Your task to perform on an android device: Clear the shopping cart on amazon. Add macbook pro to the cart on amazon, then select checkout. Image 0: 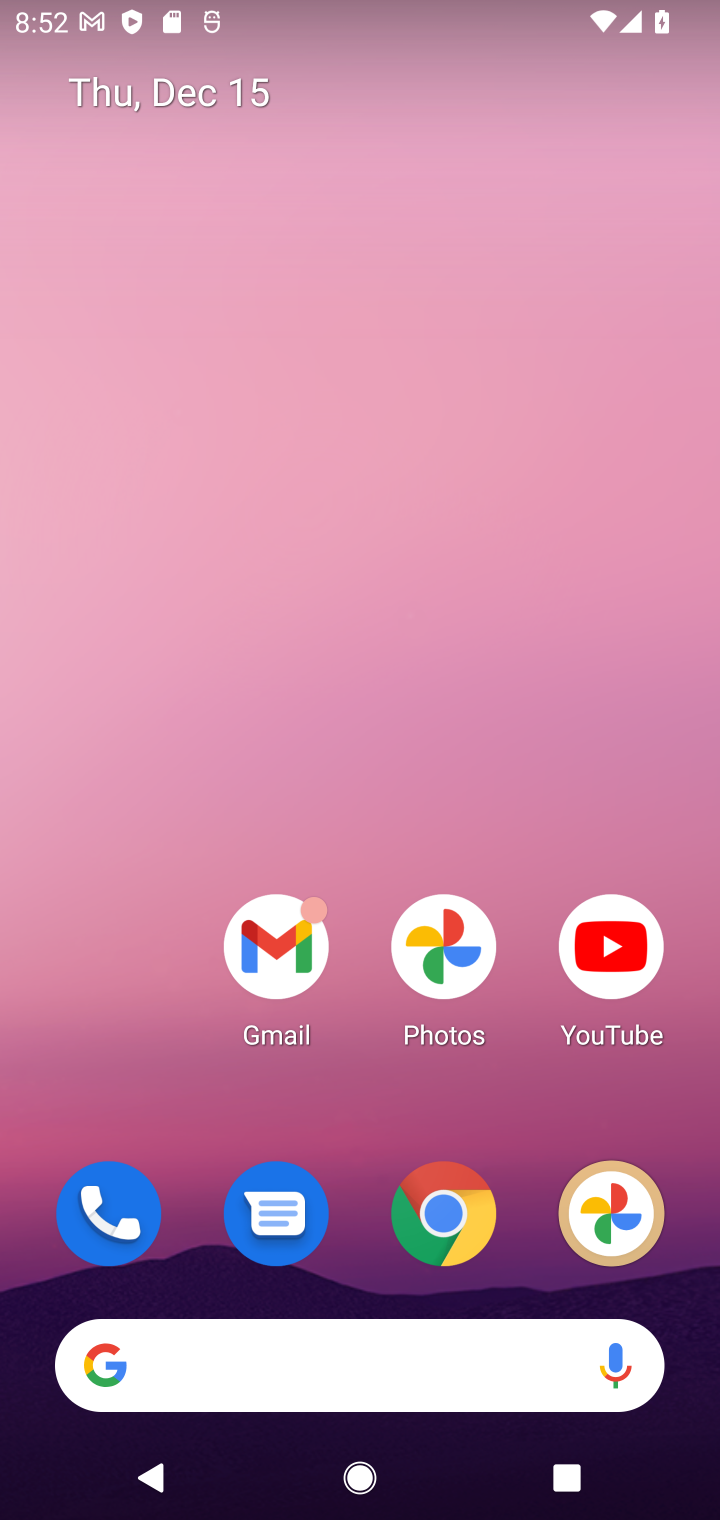
Step 0: drag from (349, 1087) to (349, 262)
Your task to perform on an android device: Clear the shopping cart on amazon. Add macbook pro to the cart on amazon, then select checkout. Image 1: 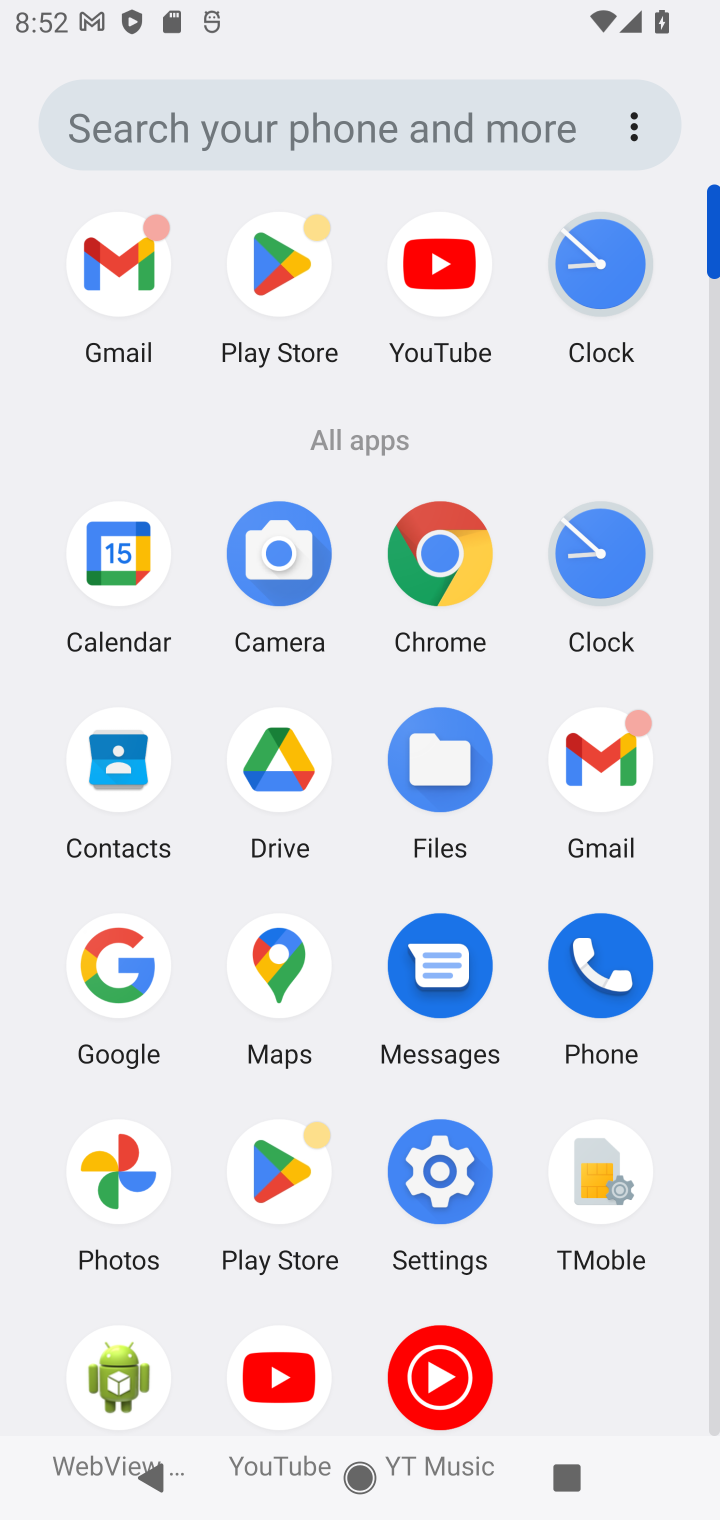
Step 1: click (119, 973)
Your task to perform on an android device: Clear the shopping cart on amazon. Add macbook pro to the cart on amazon, then select checkout. Image 2: 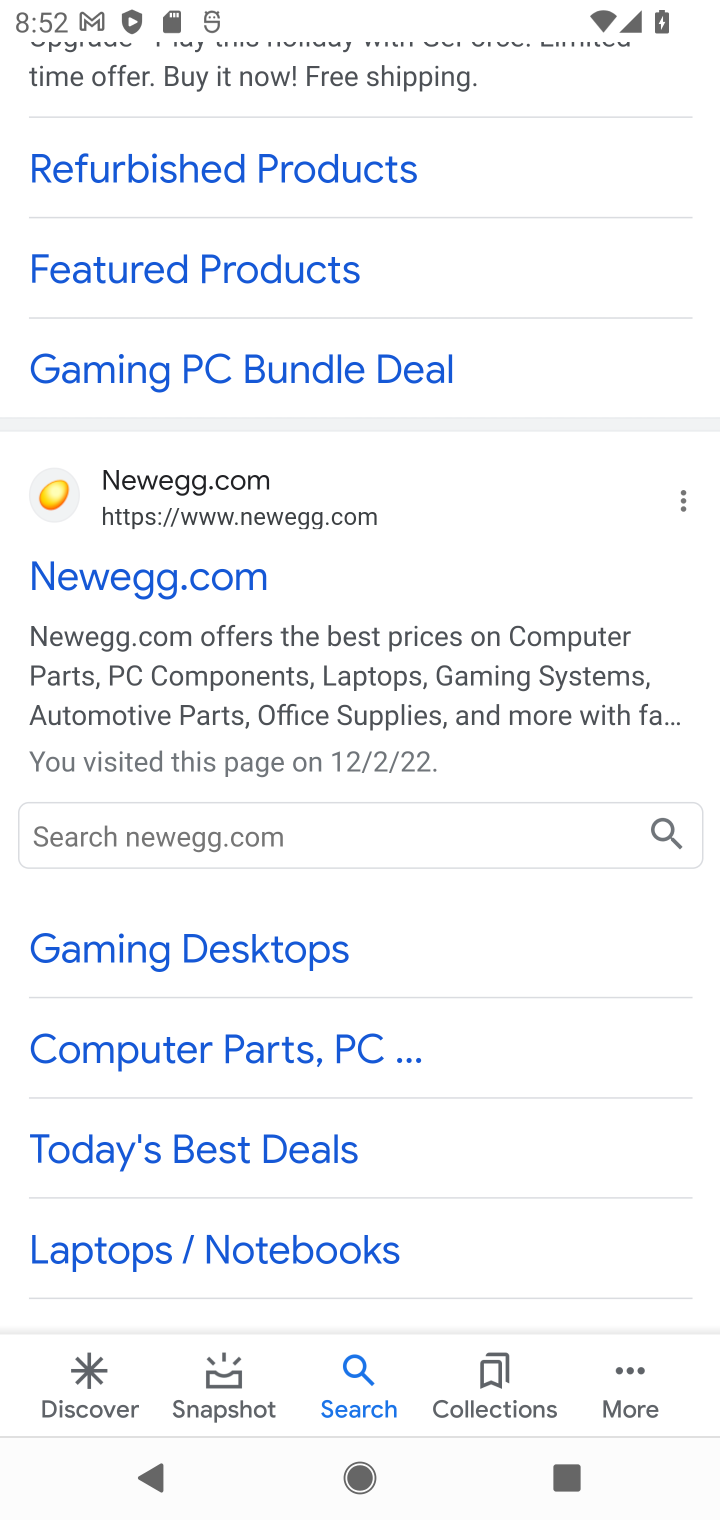
Step 2: drag from (423, 222) to (423, 1182)
Your task to perform on an android device: Clear the shopping cart on amazon. Add macbook pro to the cart on amazon, then select checkout. Image 3: 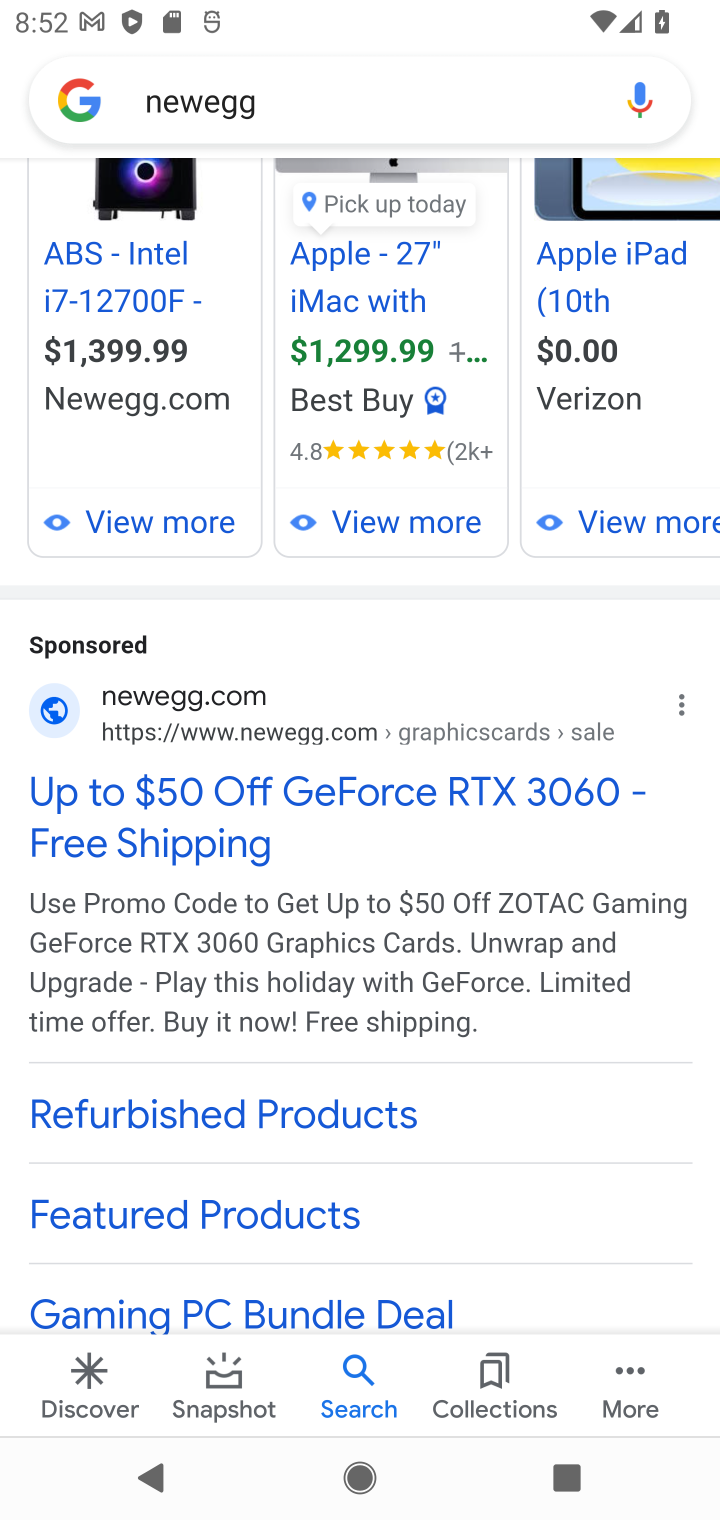
Step 3: drag from (241, 341) to (368, 1126)
Your task to perform on an android device: Clear the shopping cart on amazon. Add macbook pro to the cart on amazon, then select checkout. Image 4: 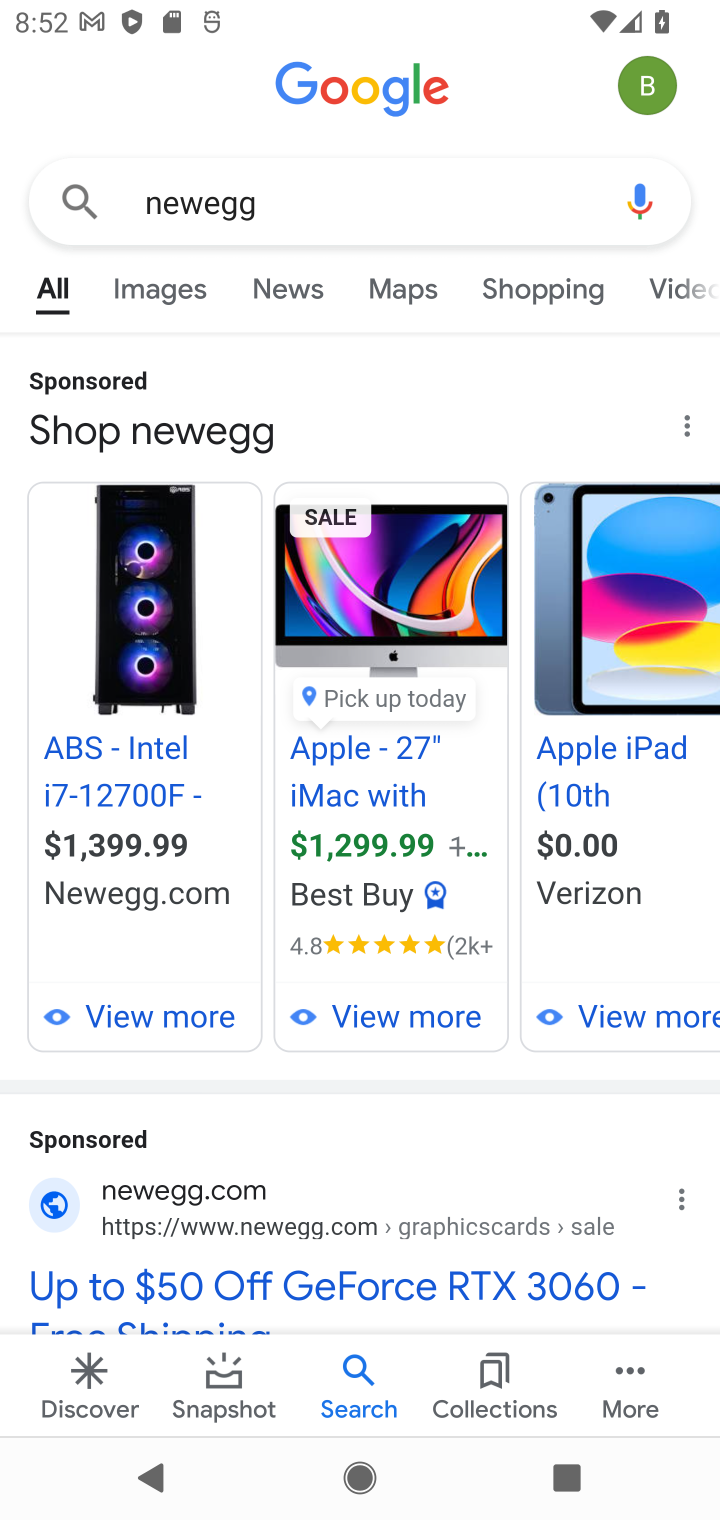
Step 4: click (209, 84)
Your task to perform on an android device: Clear the shopping cart on amazon. Add macbook pro to the cart on amazon, then select checkout. Image 5: 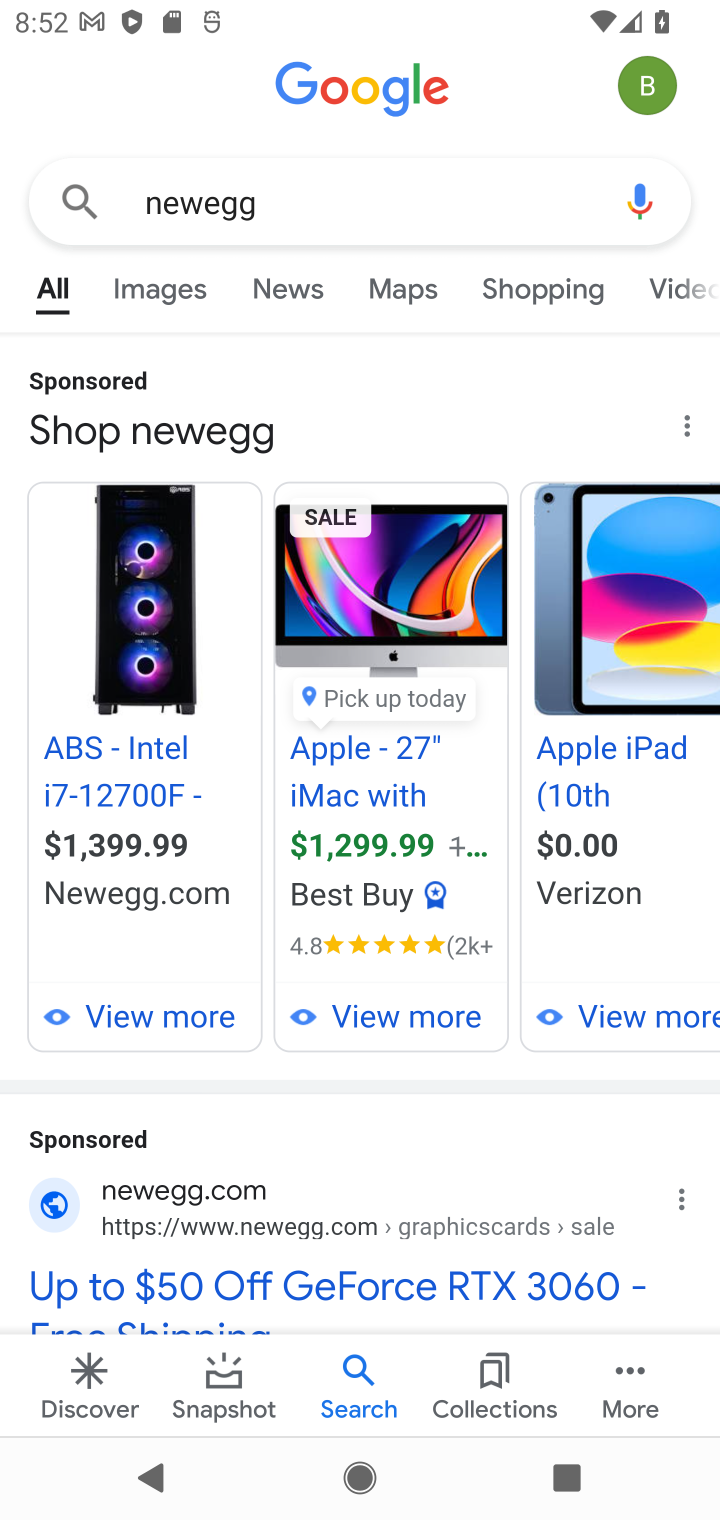
Step 5: click (226, 203)
Your task to perform on an android device: Clear the shopping cart on amazon. Add macbook pro to the cart on amazon, then select checkout. Image 6: 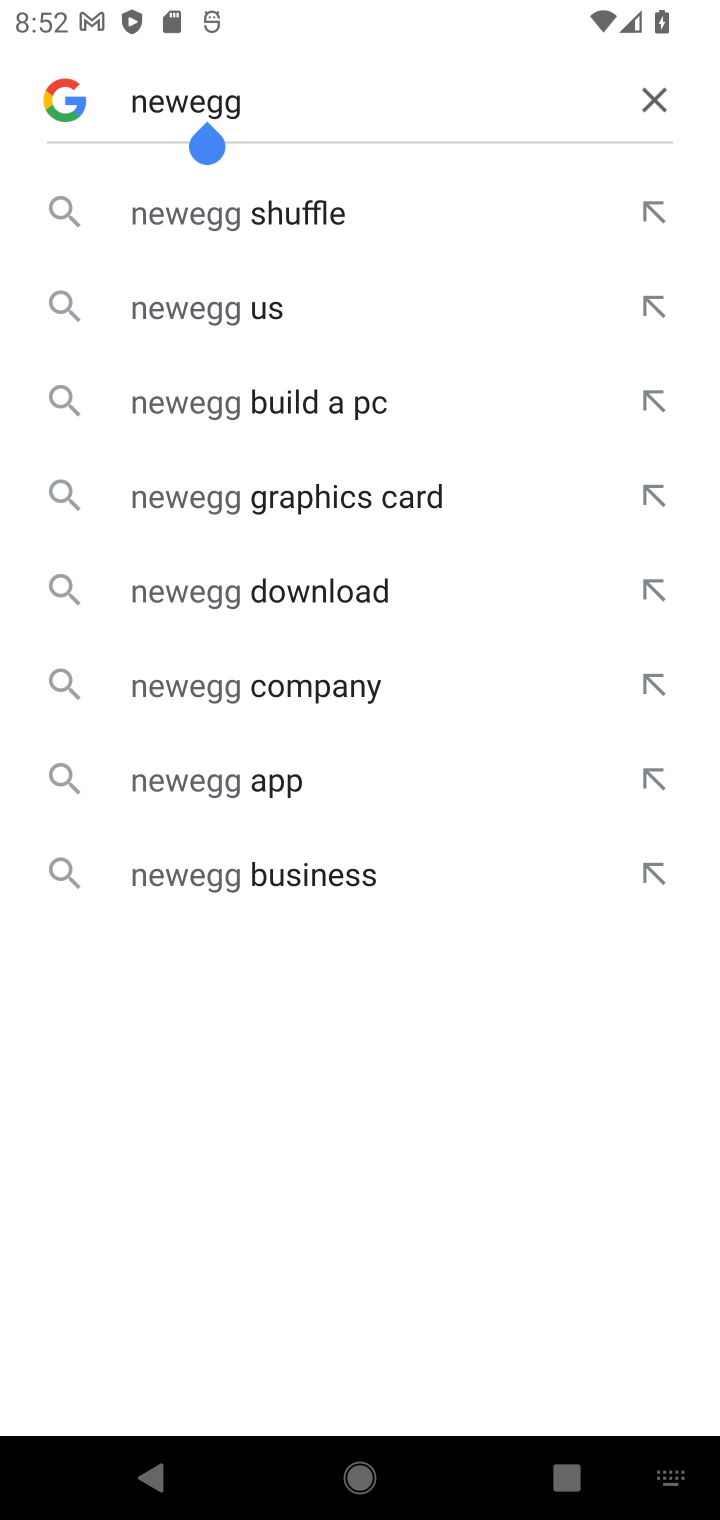
Step 6: click (657, 103)
Your task to perform on an android device: Clear the shopping cart on amazon. Add macbook pro to the cart on amazon, then select checkout. Image 7: 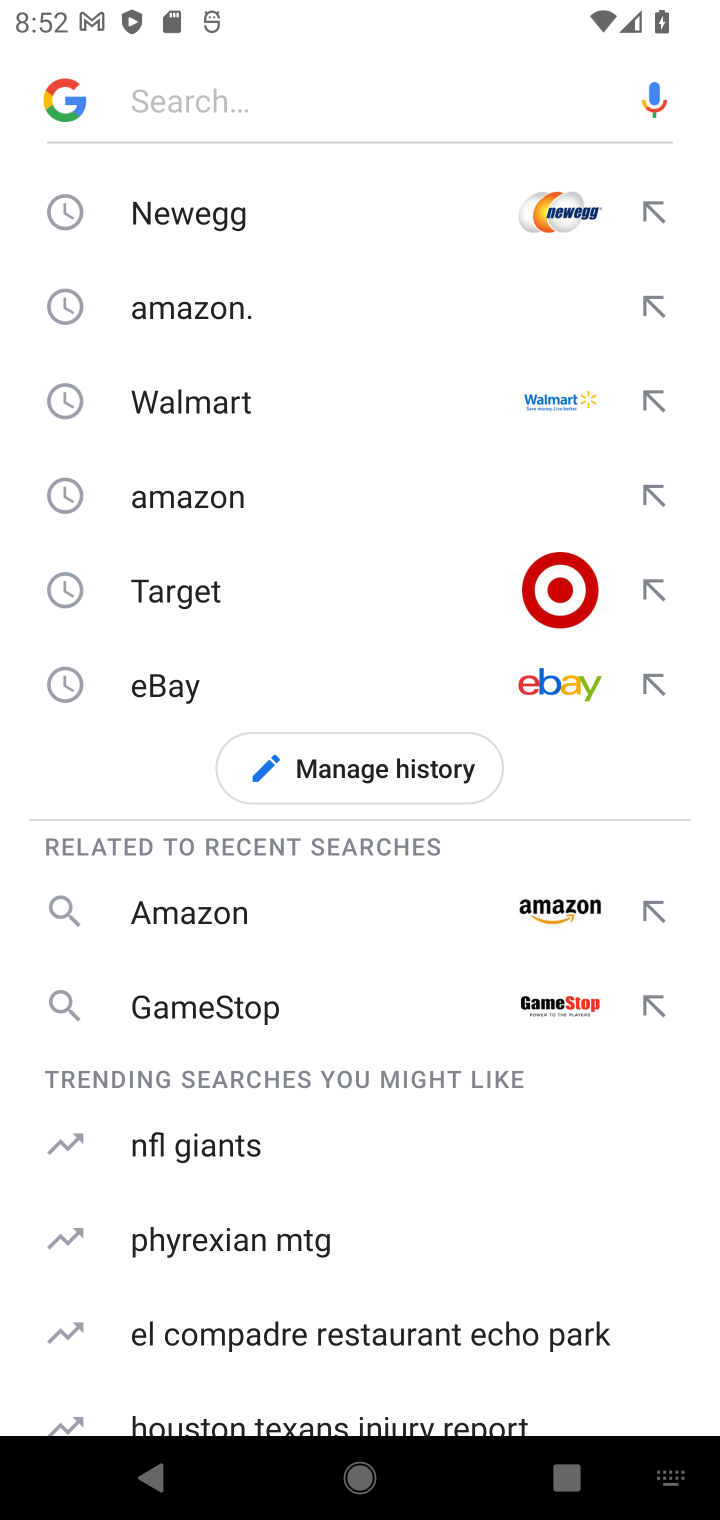
Step 7: click (179, 906)
Your task to perform on an android device: Clear the shopping cart on amazon. Add macbook pro to the cart on amazon, then select checkout. Image 8: 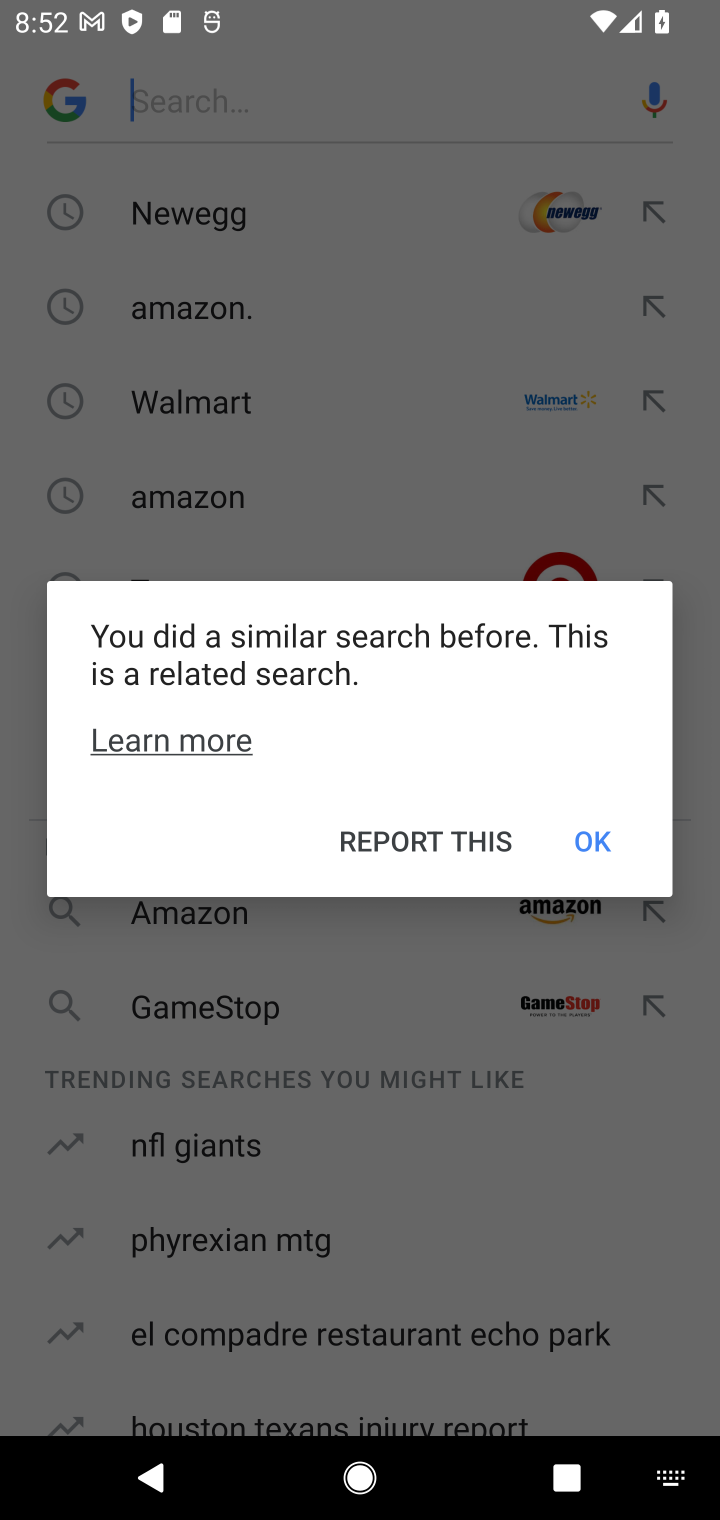
Step 8: click (608, 842)
Your task to perform on an android device: Clear the shopping cart on amazon. Add macbook pro to the cart on amazon, then select checkout. Image 9: 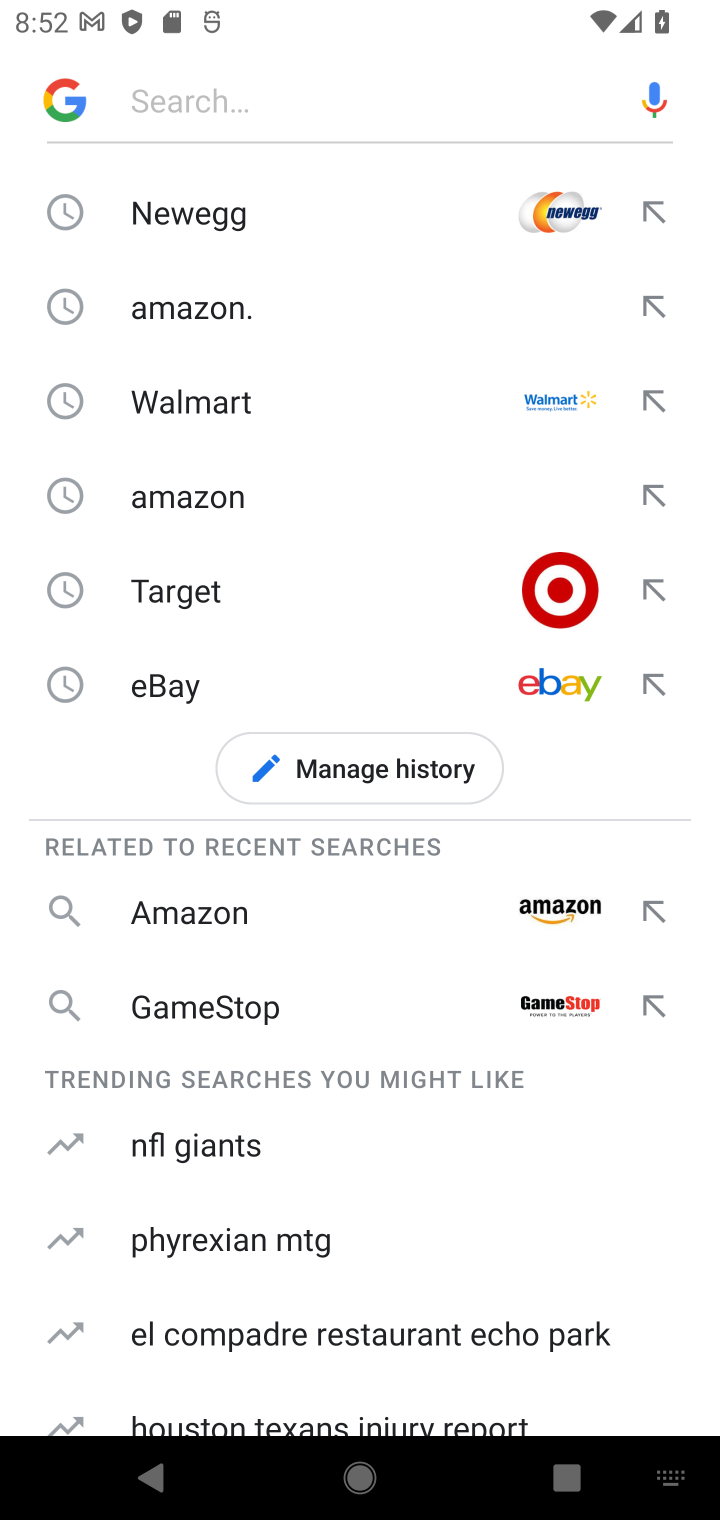
Step 9: click (543, 912)
Your task to perform on an android device: Clear the shopping cart on amazon. Add macbook pro to the cart on amazon, then select checkout. Image 10: 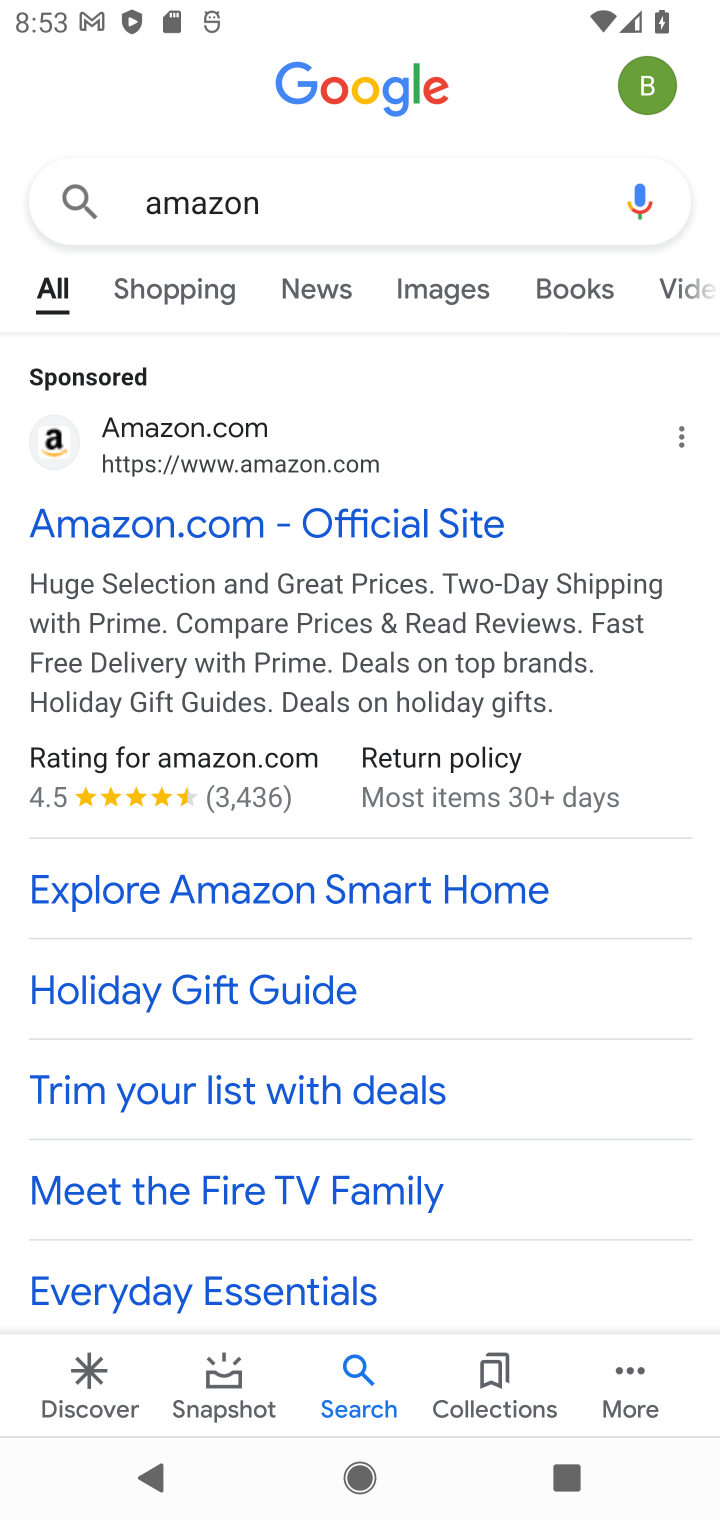
Step 10: click (174, 513)
Your task to perform on an android device: Clear the shopping cart on amazon. Add macbook pro to the cart on amazon, then select checkout. Image 11: 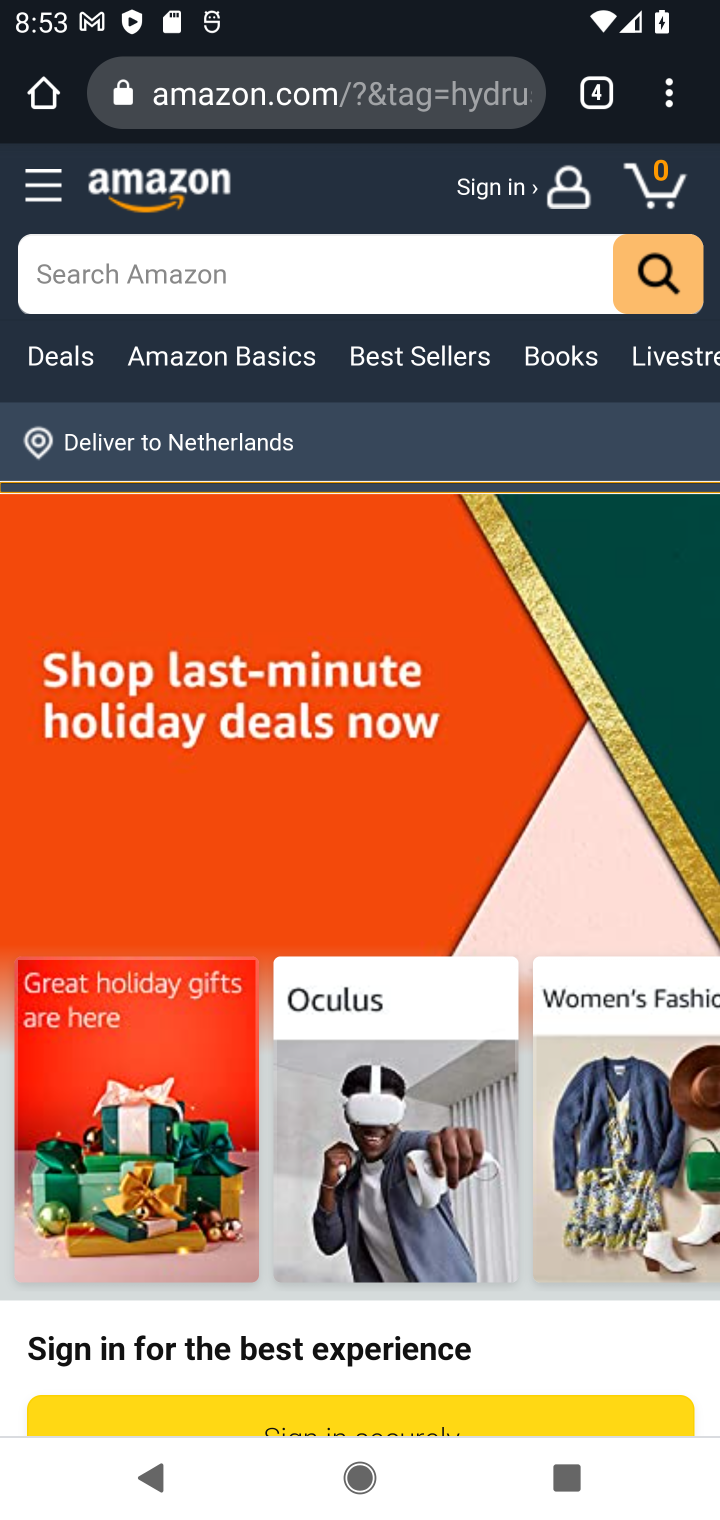
Step 11: click (227, 280)
Your task to perform on an android device: Clear the shopping cart on amazon. Add macbook pro to the cart on amazon, then select checkout. Image 12: 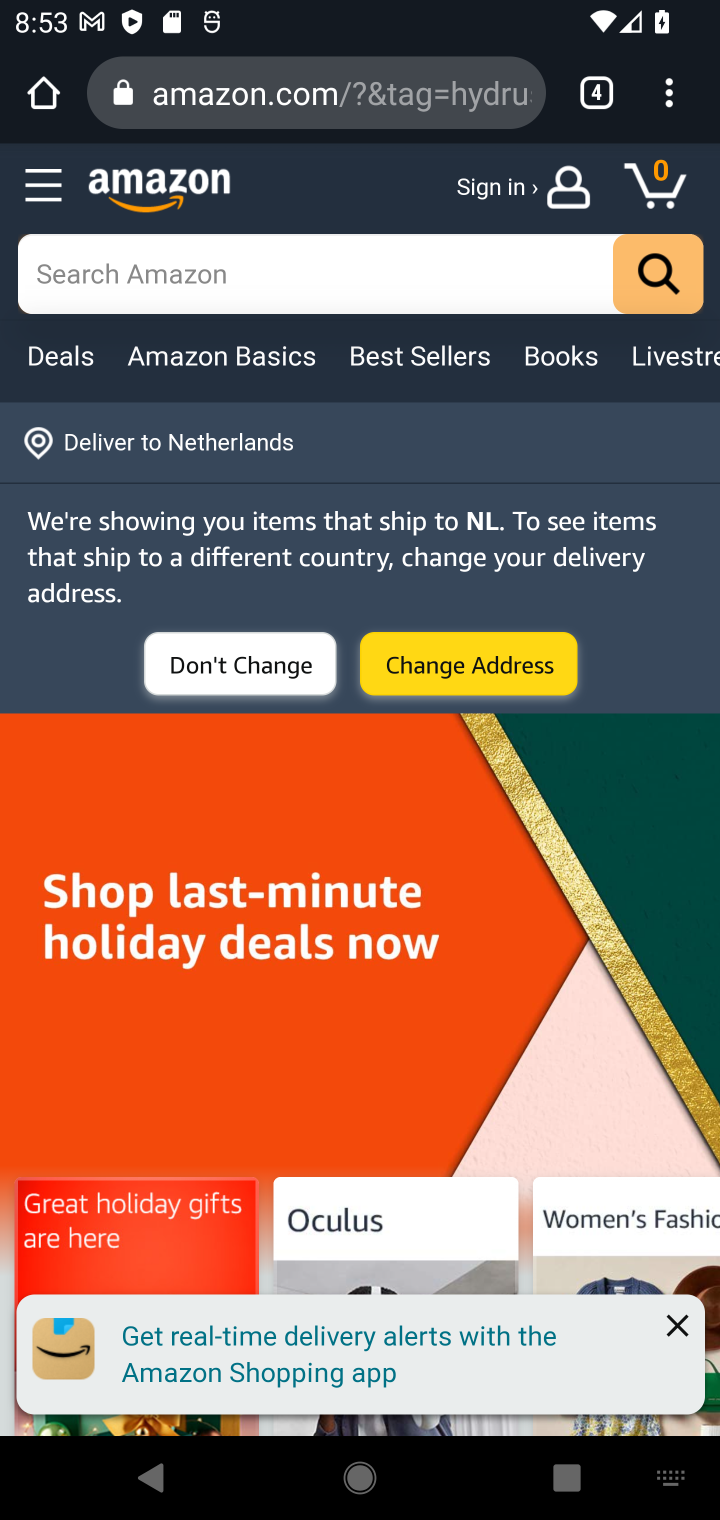
Step 12: type "macbook pro"
Your task to perform on an android device: Clear the shopping cart on amazon. Add macbook pro to the cart on amazon, then select checkout. Image 13: 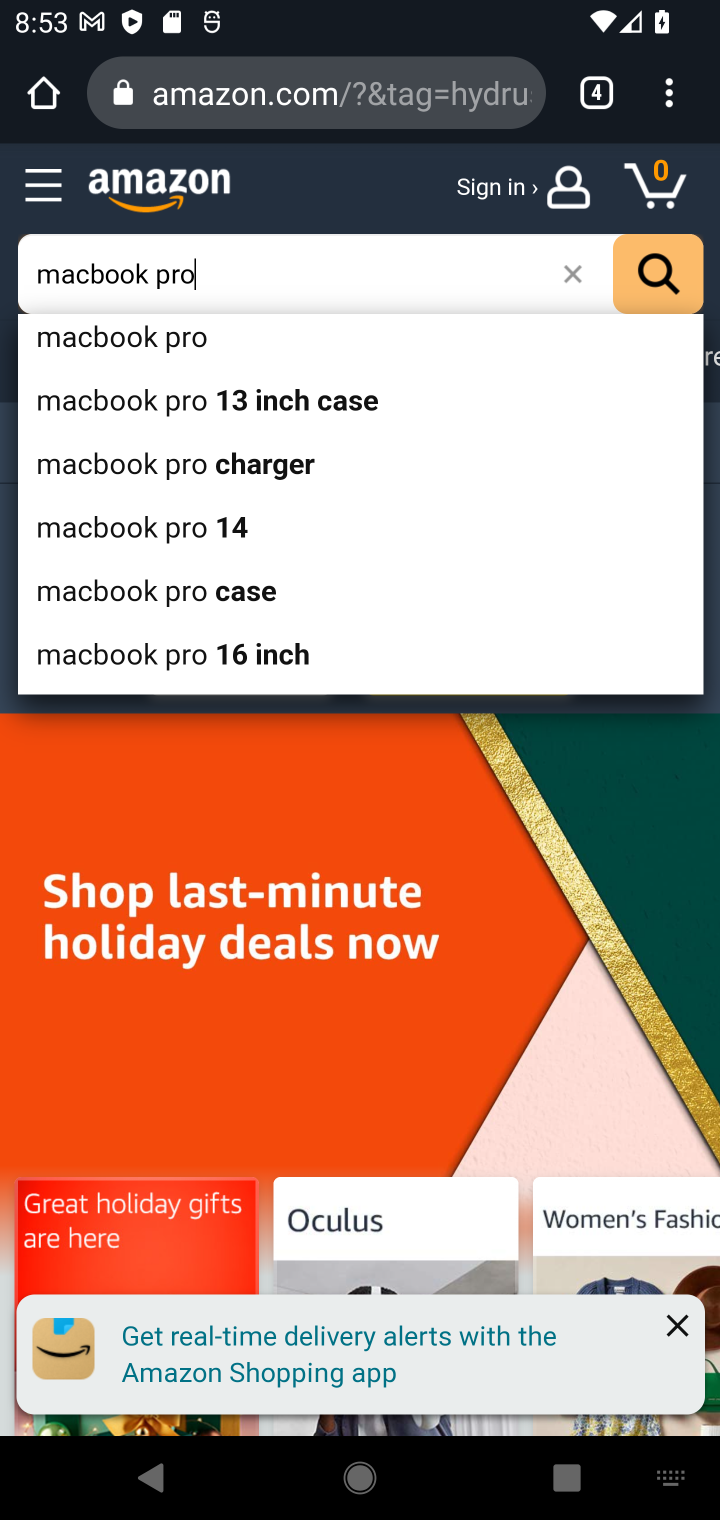
Step 13: click (94, 346)
Your task to perform on an android device: Clear the shopping cart on amazon. Add macbook pro to the cart on amazon, then select checkout. Image 14: 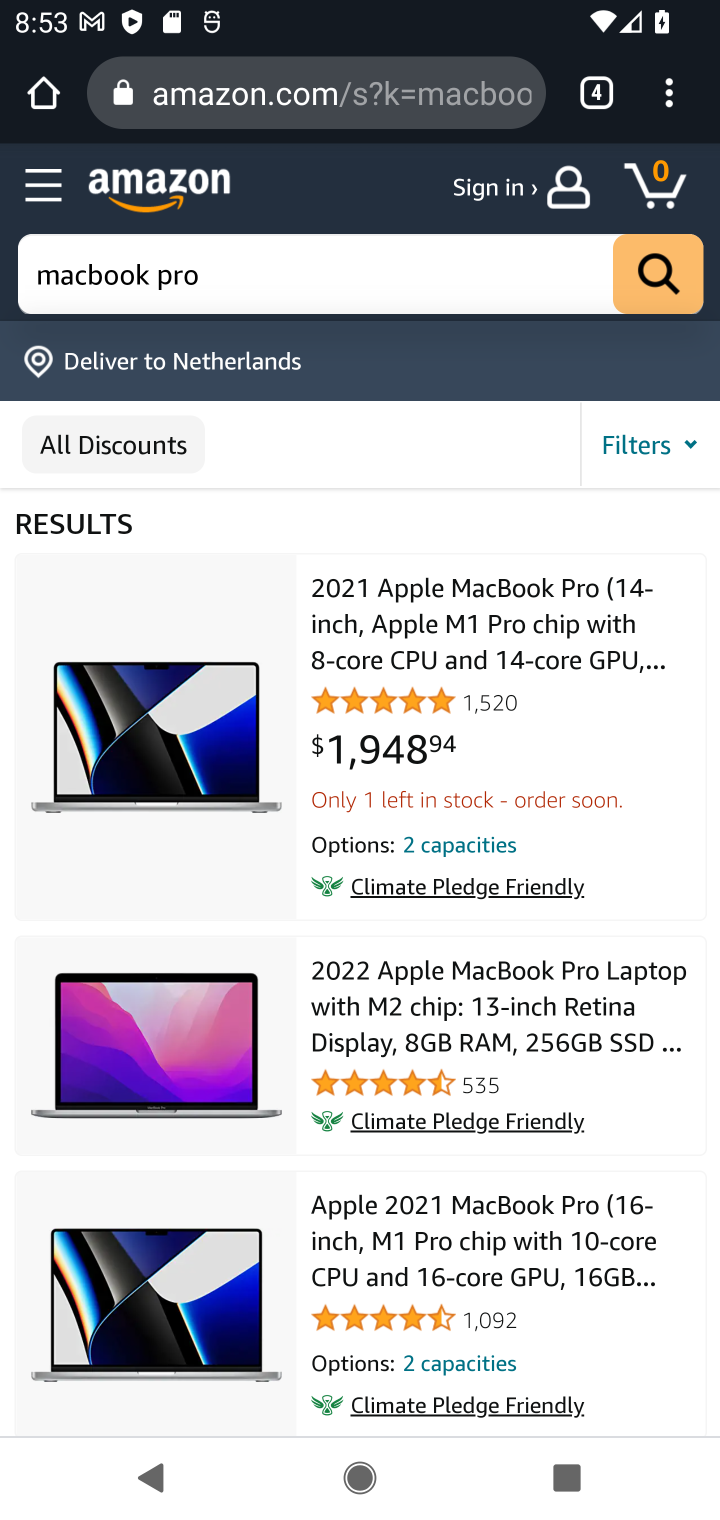
Step 14: click (225, 285)
Your task to perform on an android device: Clear the shopping cart on amazon. Add macbook pro to the cart on amazon, then select checkout. Image 15: 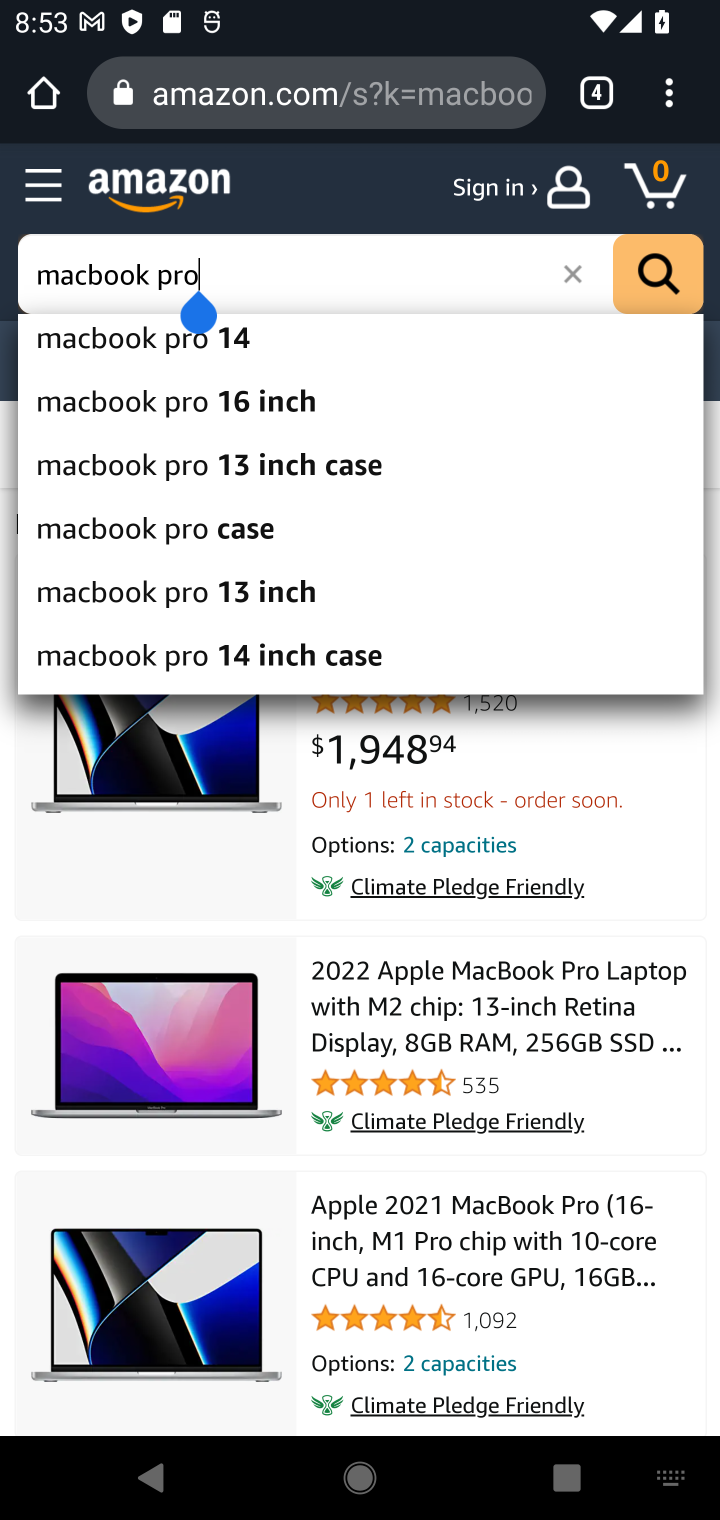
Step 15: click (717, 382)
Your task to perform on an android device: Clear the shopping cart on amazon. Add macbook pro to the cart on amazon, then select checkout. Image 16: 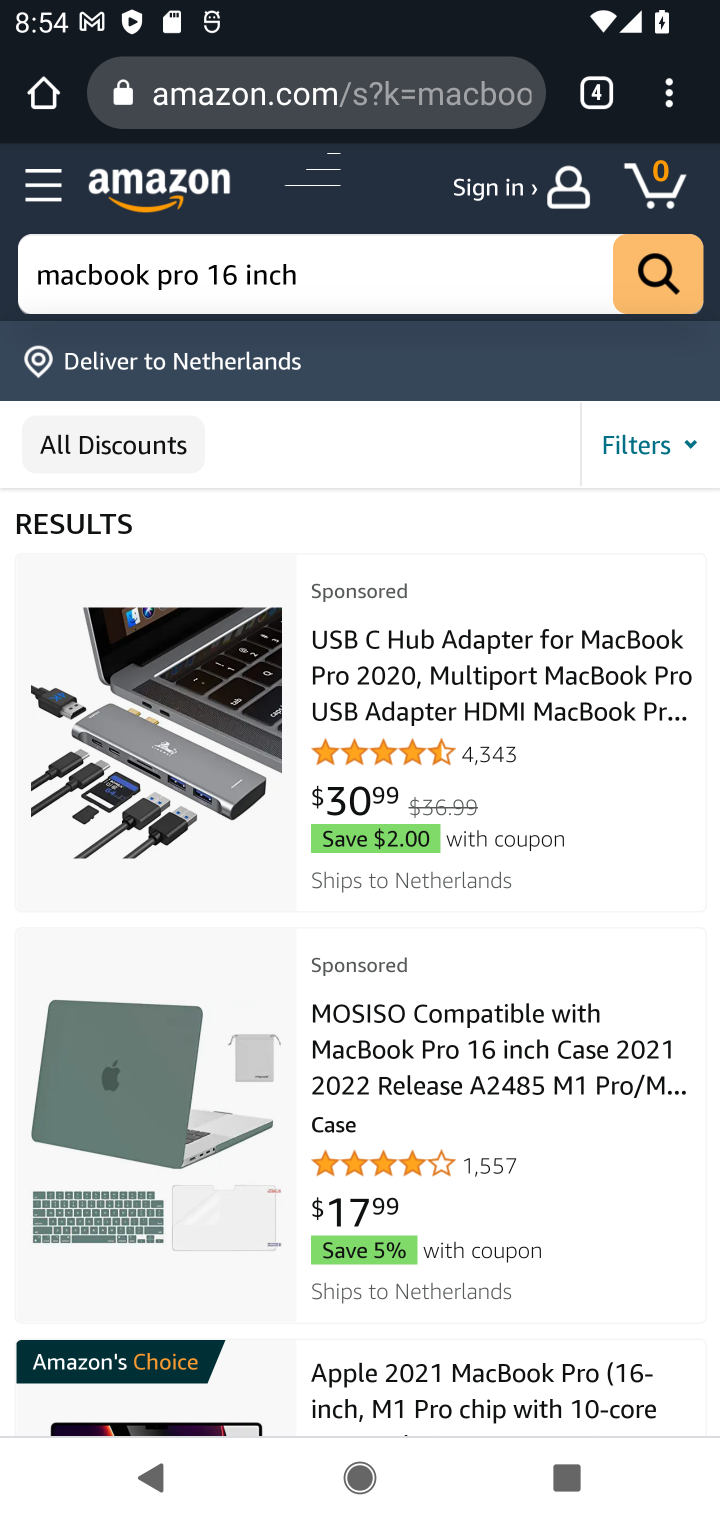
Step 16: click (464, 709)
Your task to perform on an android device: Clear the shopping cart on amazon. Add macbook pro to the cart on amazon, then select checkout. Image 17: 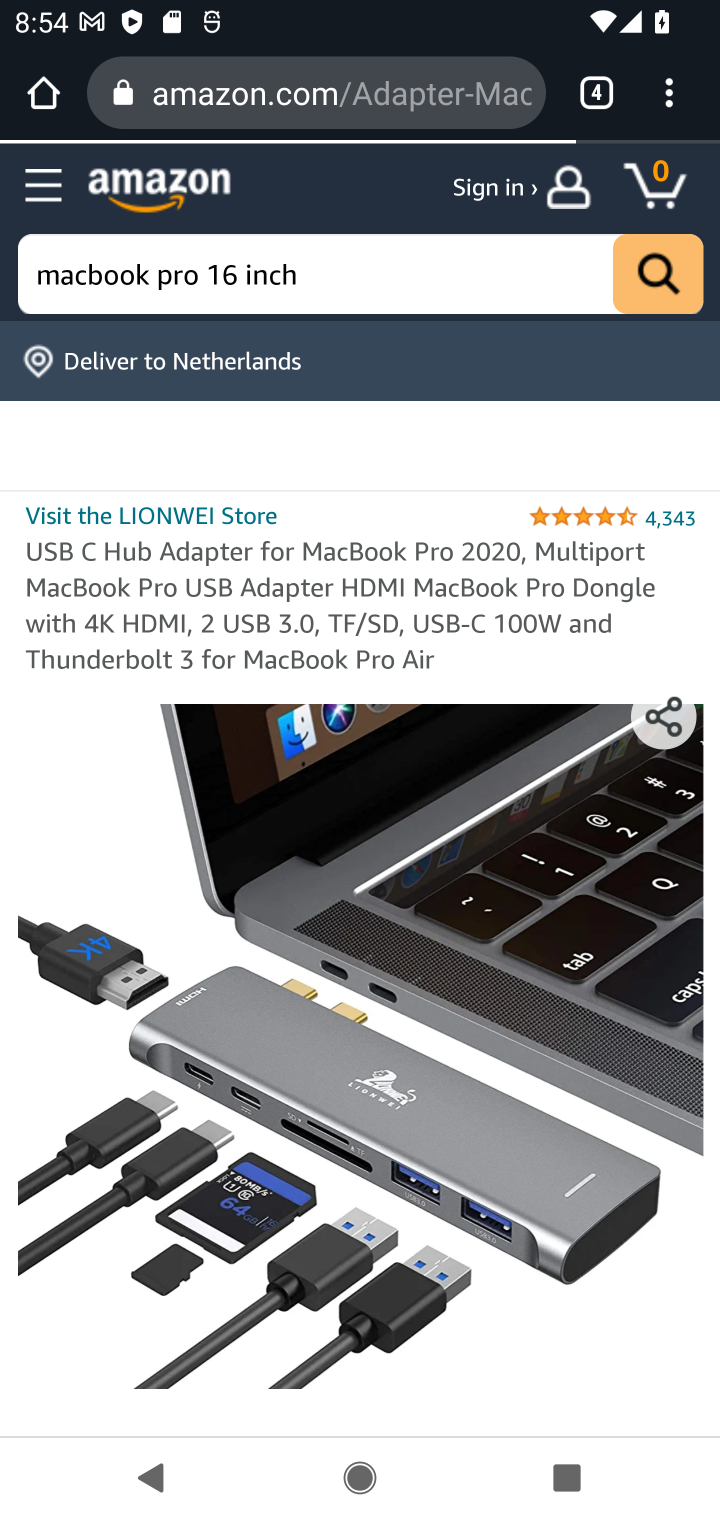
Step 17: drag from (492, 1351) to (487, 541)
Your task to perform on an android device: Clear the shopping cart on amazon. Add macbook pro to the cart on amazon, then select checkout. Image 18: 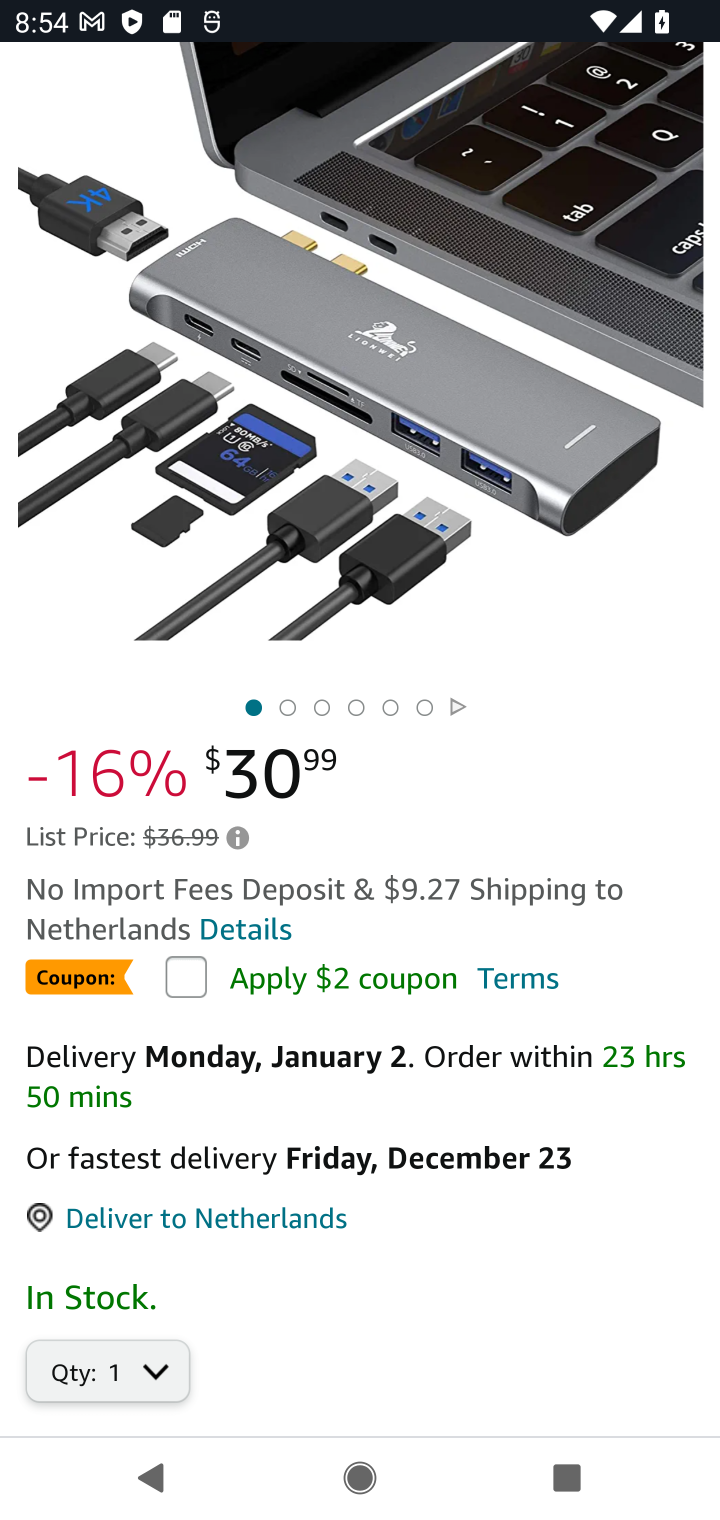
Step 18: drag from (319, 1130) to (291, 530)
Your task to perform on an android device: Clear the shopping cart on amazon. Add macbook pro to the cart on amazon, then select checkout. Image 19: 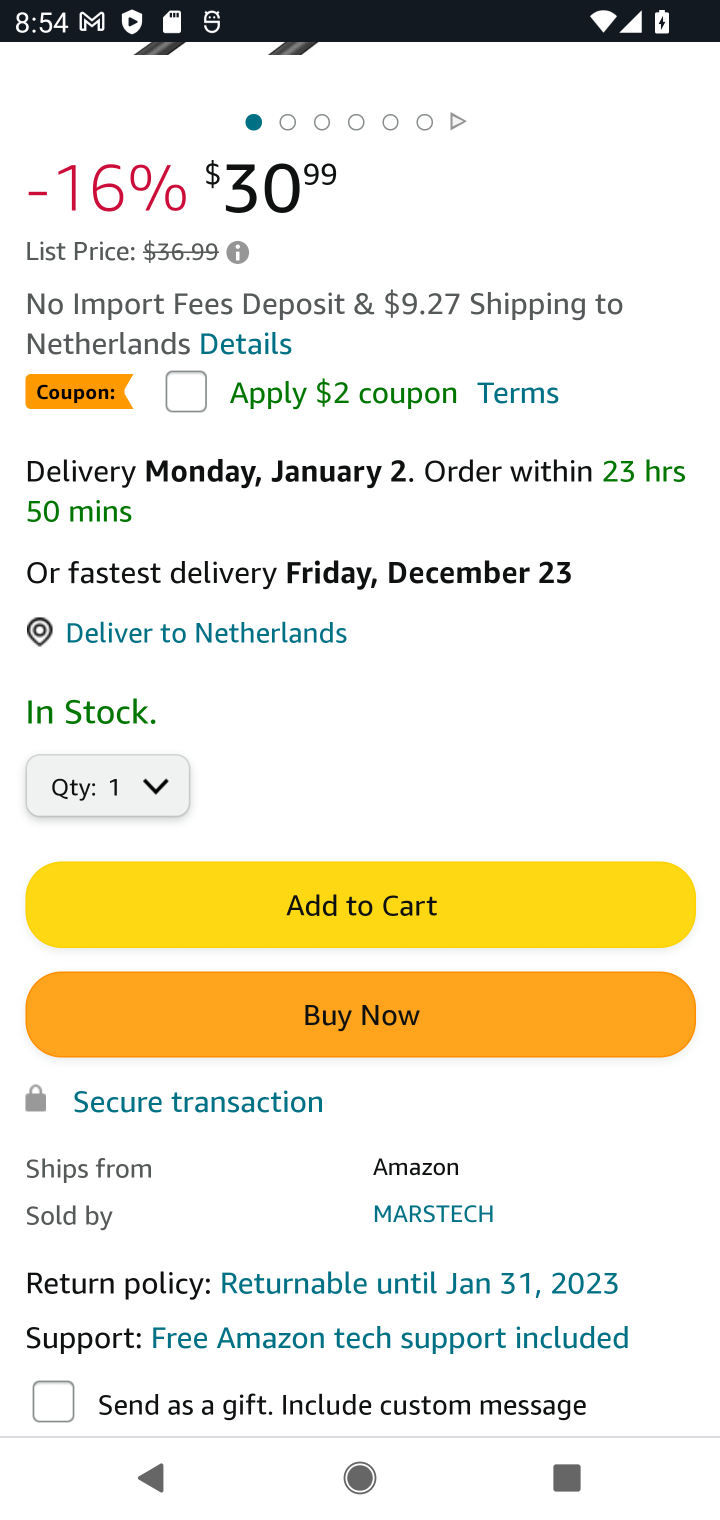
Step 19: click (284, 901)
Your task to perform on an android device: Clear the shopping cart on amazon. Add macbook pro to the cart on amazon, then select checkout. Image 20: 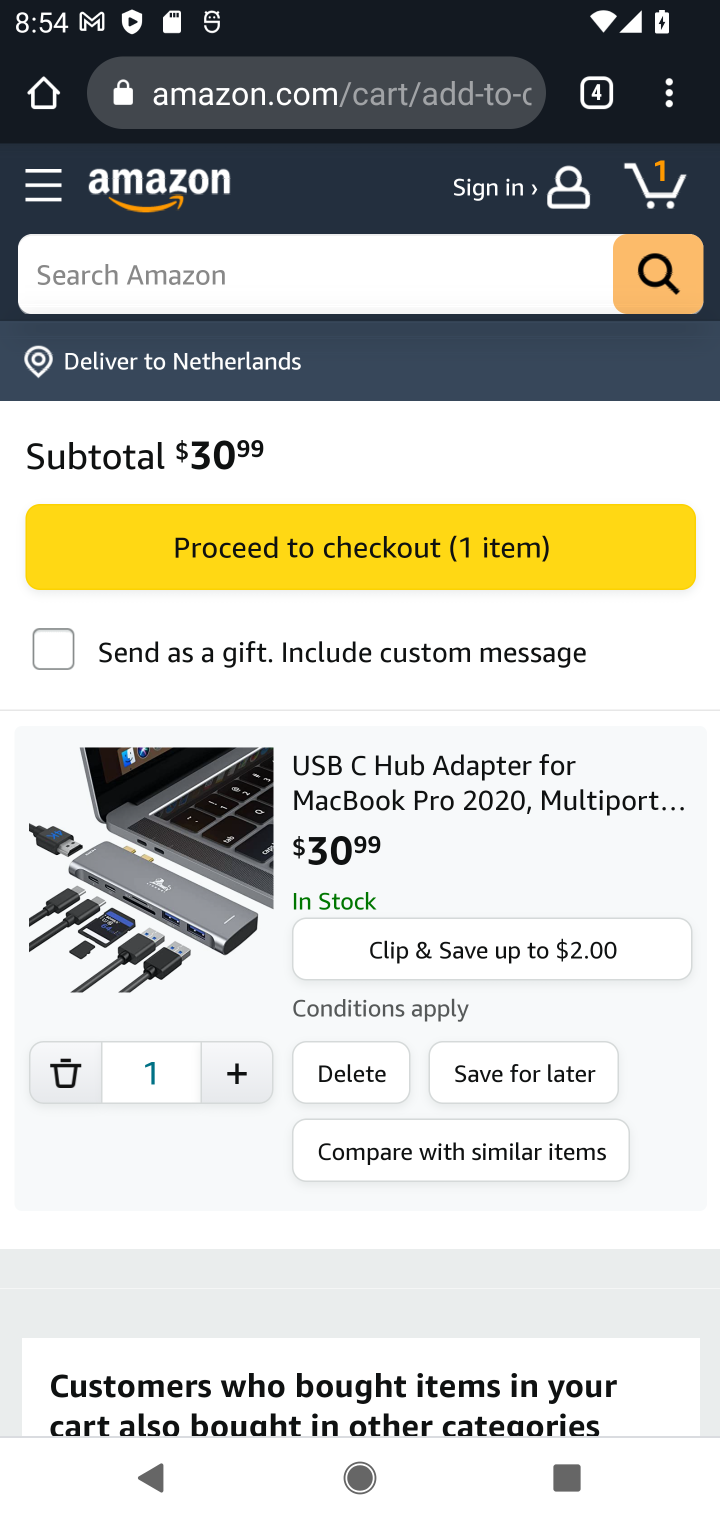
Step 20: click (342, 550)
Your task to perform on an android device: Clear the shopping cart on amazon. Add macbook pro to the cart on amazon, then select checkout. Image 21: 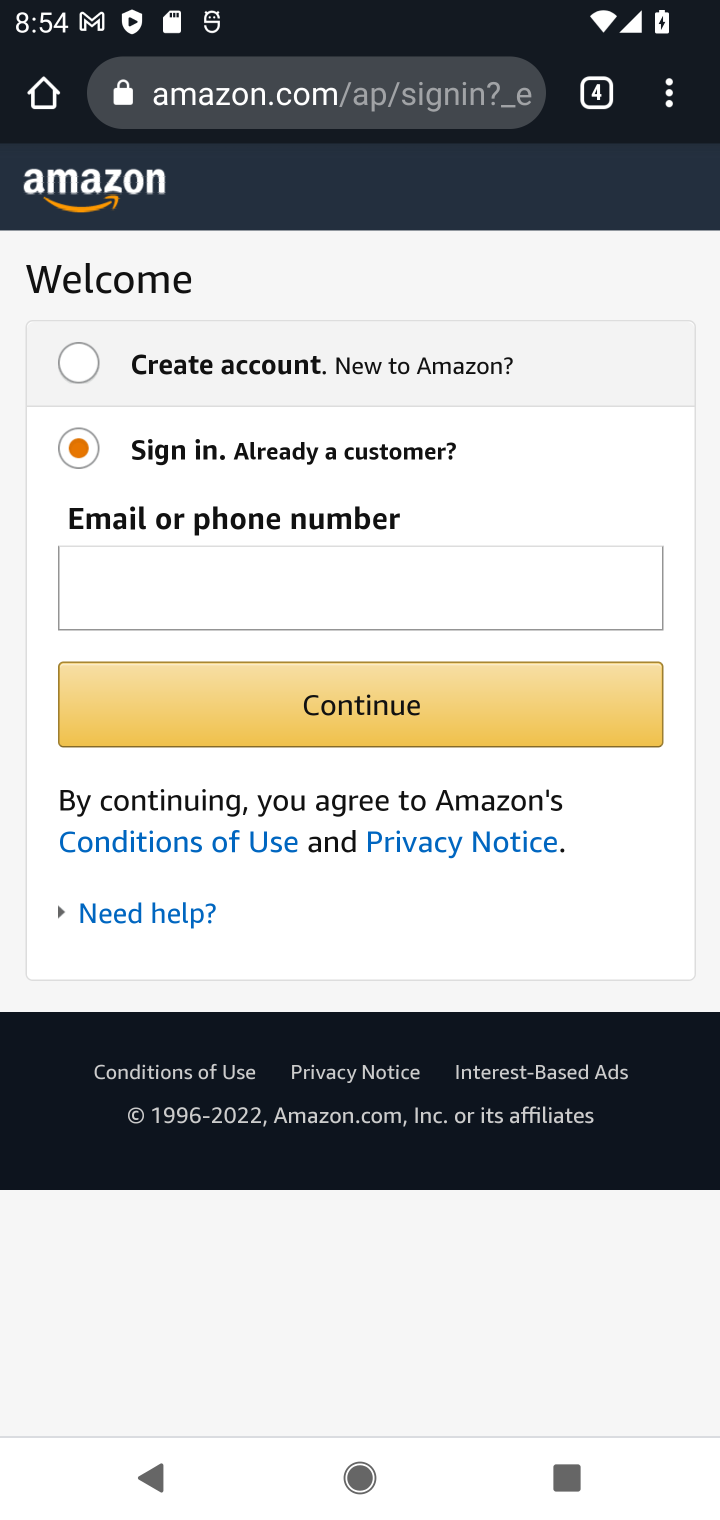
Step 21: task complete